Your task to perform on an android device: turn off sleep mode Image 0: 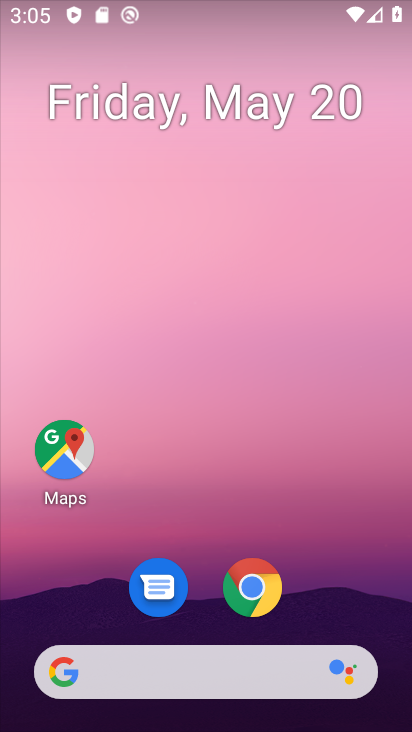
Step 0: drag from (363, 548) to (363, 216)
Your task to perform on an android device: turn off sleep mode Image 1: 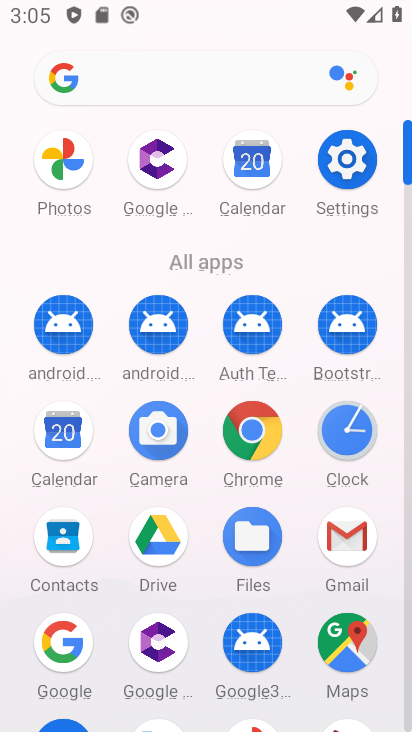
Step 1: click (338, 165)
Your task to perform on an android device: turn off sleep mode Image 2: 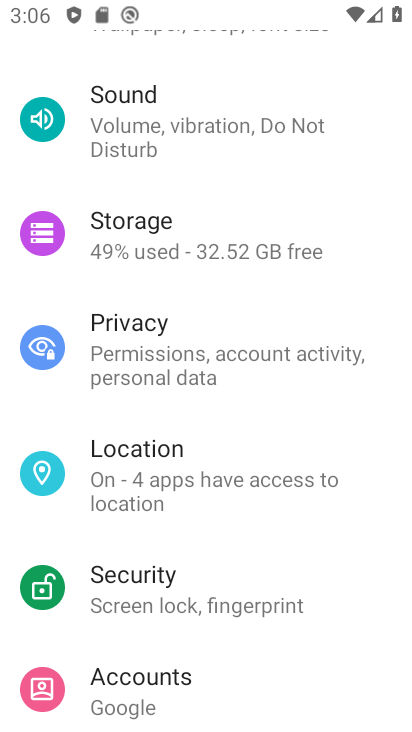
Step 2: drag from (173, 133) to (259, 579)
Your task to perform on an android device: turn off sleep mode Image 3: 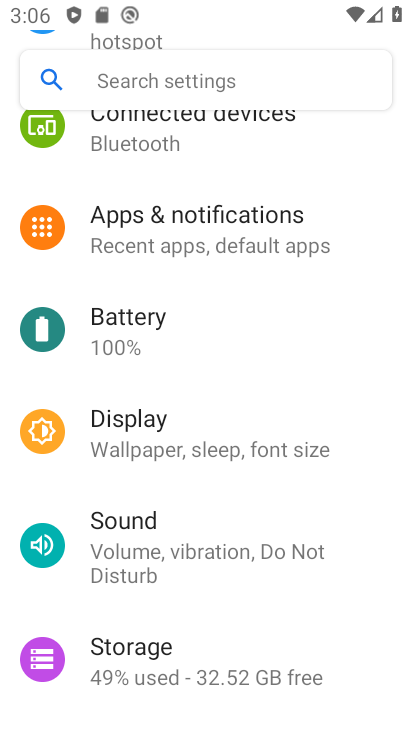
Step 3: click (104, 440)
Your task to perform on an android device: turn off sleep mode Image 4: 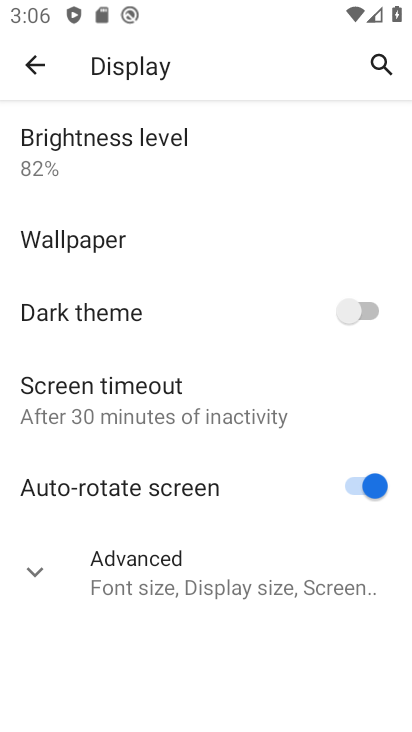
Step 4: task complete